Your task to perform on an android device: set default search engine in the chrome app Image 0: 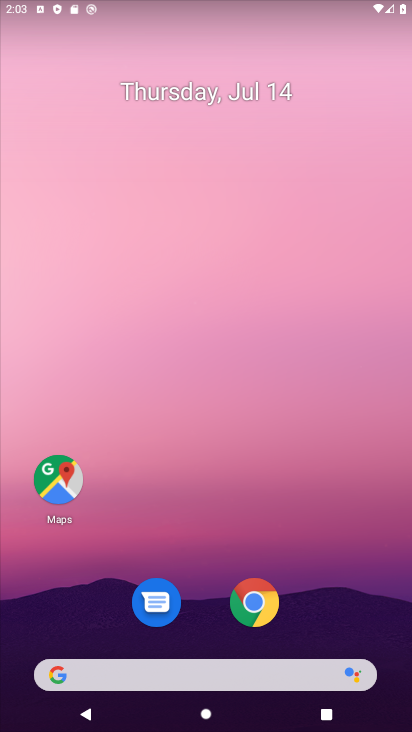
Step 0: click (252, 604)
Your task to perform on an android device: set default search engine in the chrome app Image 1: 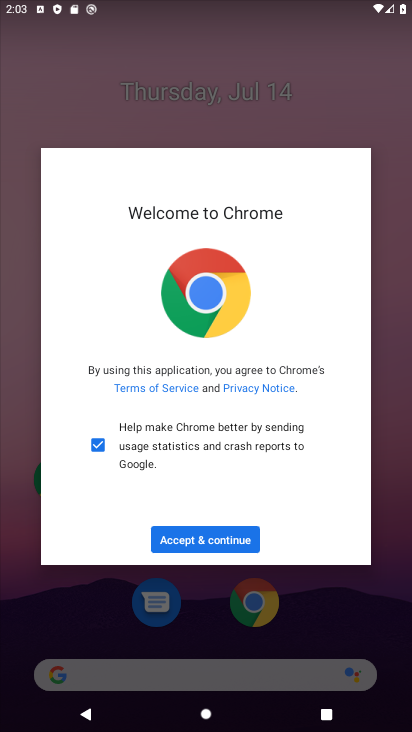
Step 1: click (199, 538)
Your task to perform on an android device: set default search engine in the chrome app Image 2: 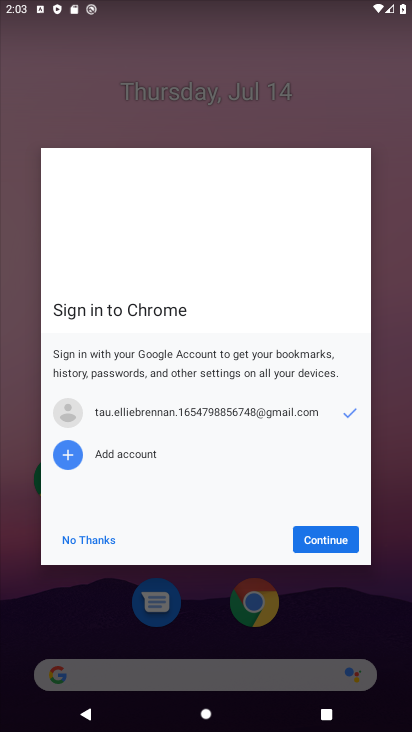
Step 2: click (330, 538)
Your task to perform on an android device: set default search engine in the chrome app Image 3: 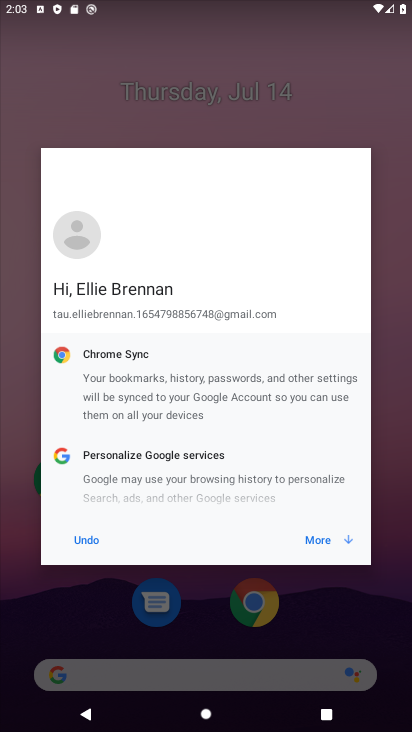
Step 3: click (330, 538)
Your task to perform on an android device: set default search engine in the chrome app Image 4: 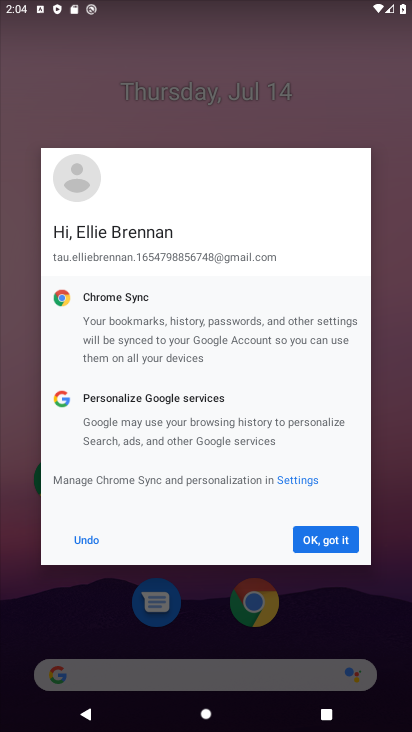
Step 4: click (320, 541)
Your task to perform on an android device: set default search engine in the chrome app Image 5: 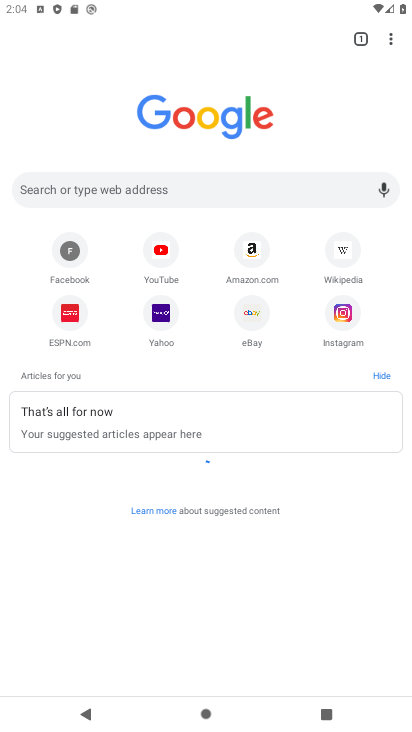
Step 5: click (389, 39)
Your task to perform on an android device: set default search engine in the chrome app Image 6: 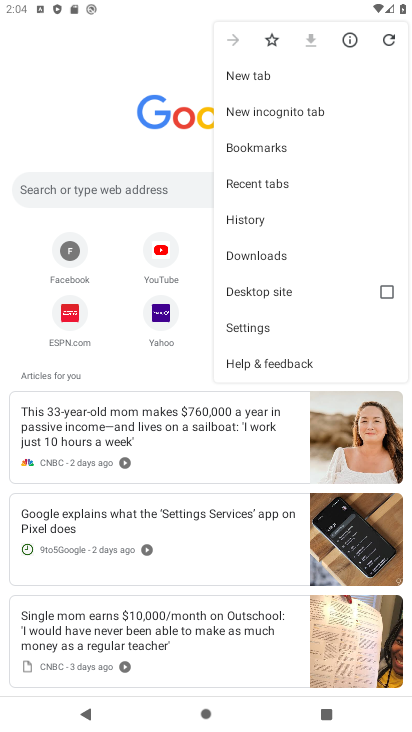
Step 6: click (258, 322)
Your task to perform on an android device: set default search engine in the chrome app Image 7: 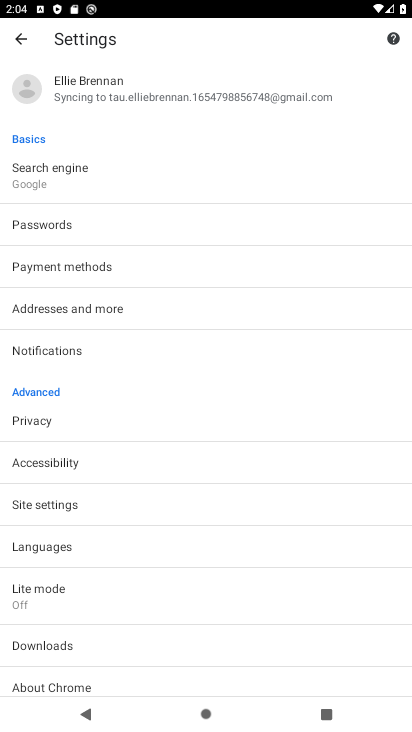
Step 7: click (35, 171)
Your task to perform on an android device: set default search engine in the chrome app Image 8: 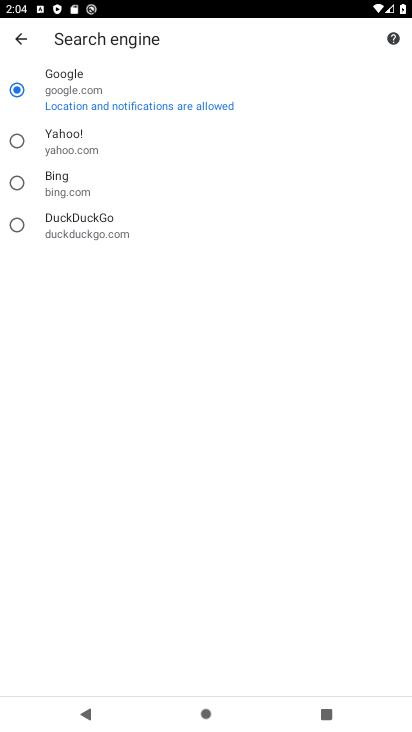
Step 8: click (15, 143)
Your task to perform on an android device: set default search engine in the chrome app Image 9: 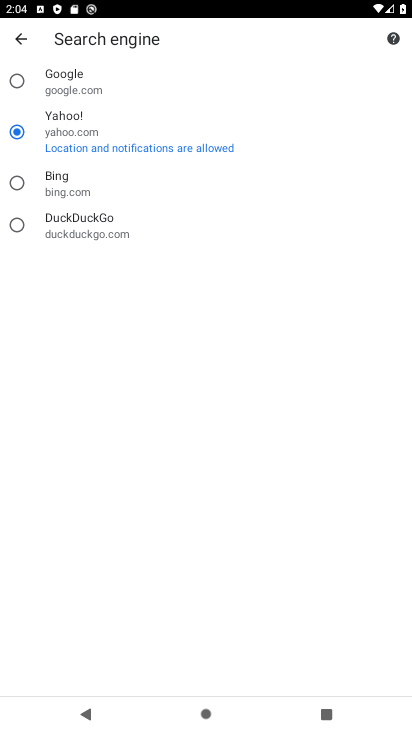
Step 9: task complete